Your task to perform on an android device: Open wifi settings Image 0: 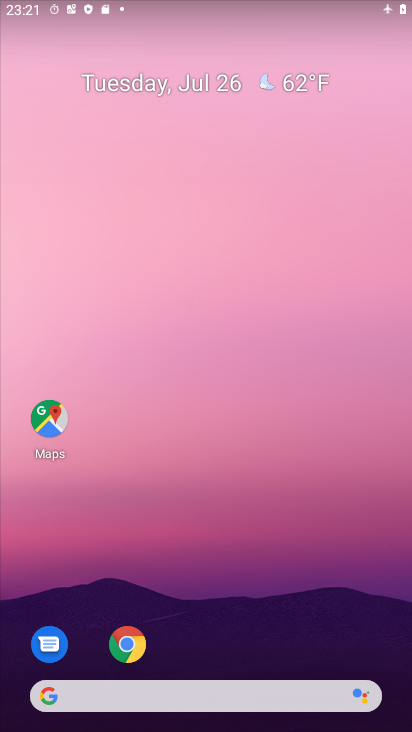
Step 0: drag from (242, 633) to (223, 12)
Your task to perform on an android device: Open wifi settings Image 1: 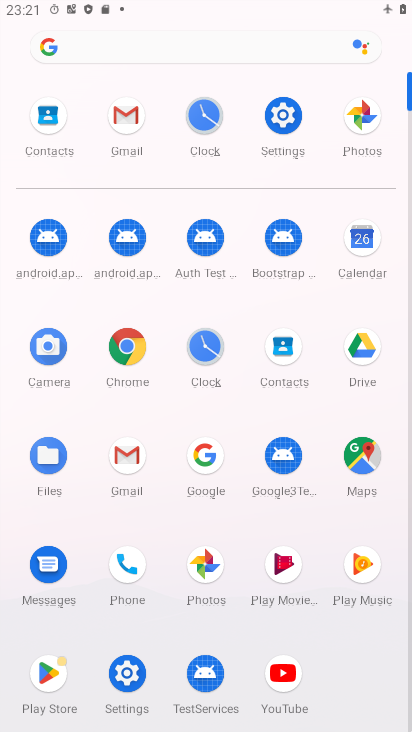
Step 1: click (281, 122)
Your task to perform on an android device: Open wifi settings Image 2: 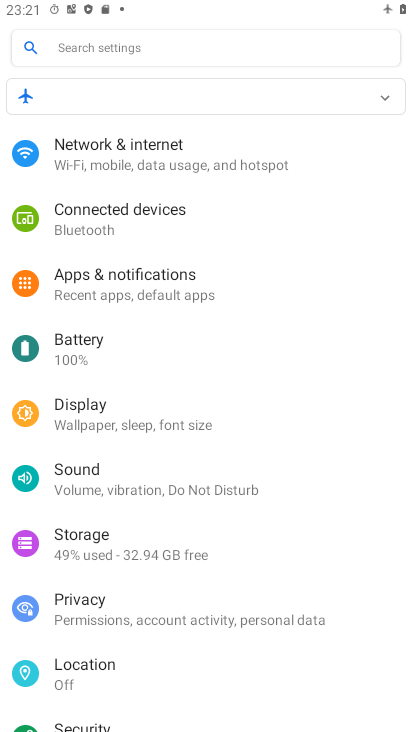
Step 2: click (97, 172)
Your task to perform on an android device: Open wifi settings Image 3: 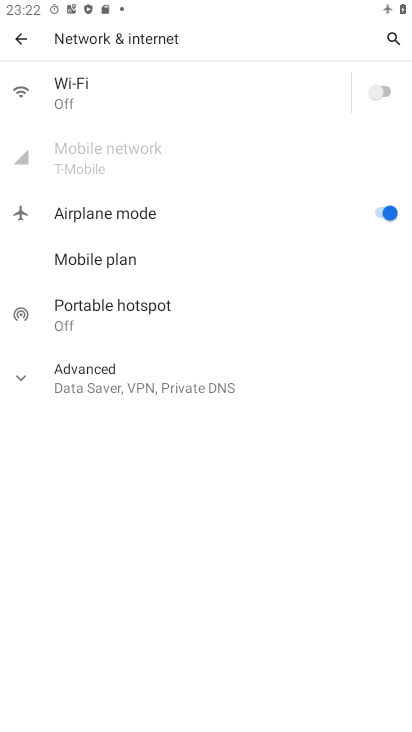
Step 3: click (54, 90)
Your task to perform on an android device: Open wifi settings Image 4: 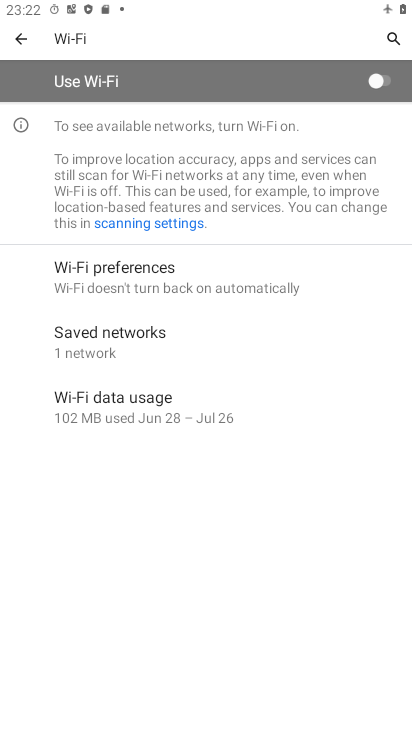
Step 4: task complete